Your task to perform on an android device: Show me the alarms in the clock app Image 0: 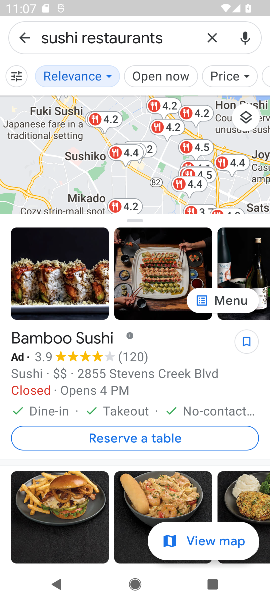
Step 0: press home button
Your task to perform on an android device: Show me the alarms in the clock app Image 1: 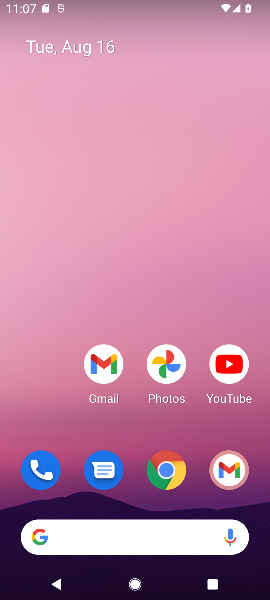
Step 1: drag from (59, 386) to (54, 4)
Your task to perform on an android device: Show me the alarms in the clock app Image 2: 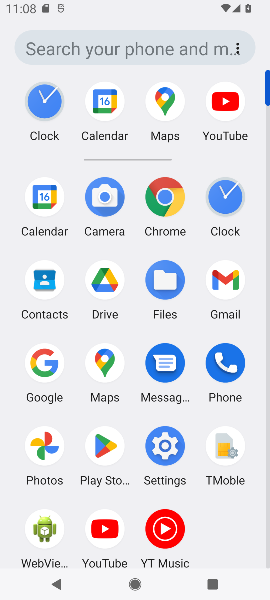
Step 2: click (53, 100)
Your task to perform on an android device: Show me the alarms in the clock app Image 3: 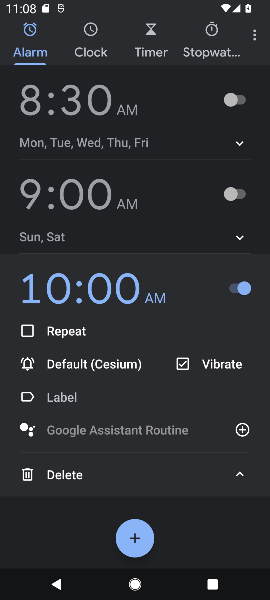
Step 3: click (32, 41)
Your task to perform on an android device: Show me the alarms in the clock app Image 4: 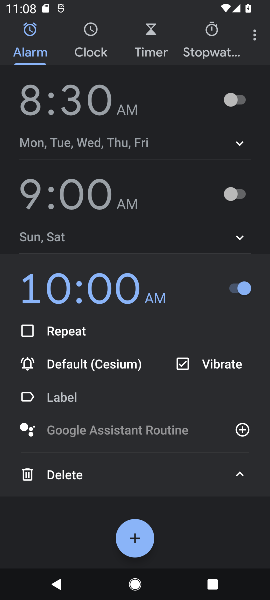
Step 4: task complete